Your task to perform on an android device: empty trash in google photos Image 0: 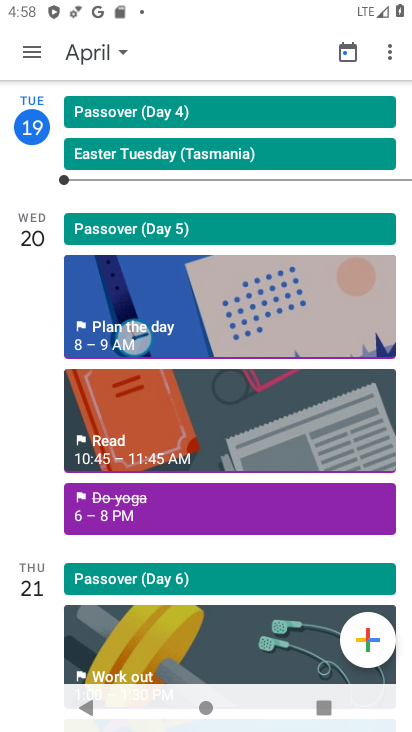
Step 0: press home button
Your task to perform on an android device: empty trash in google photos Image 1: 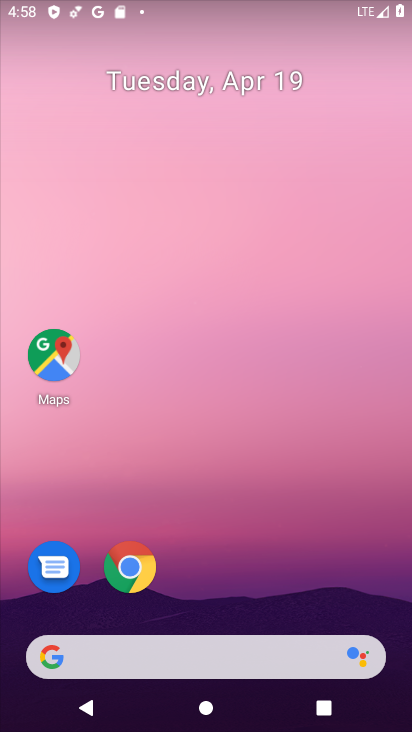
Step 1: drag from (253, 535) to (208, 37)
Your task to perform on an android device: empty trash in google photos Image 2: 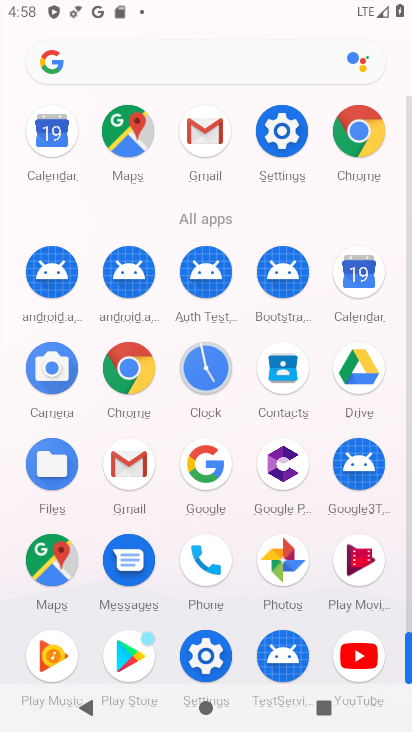
Step 2: click (275, 569)
Your task to perform on an android device: empty trash in google photos Image 3: 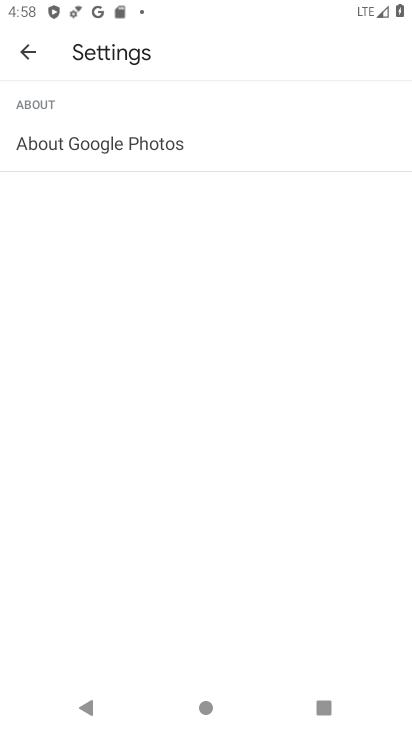
Step 3: press back button
Your task to perform on an android device: empty trash in google photos Image 4: 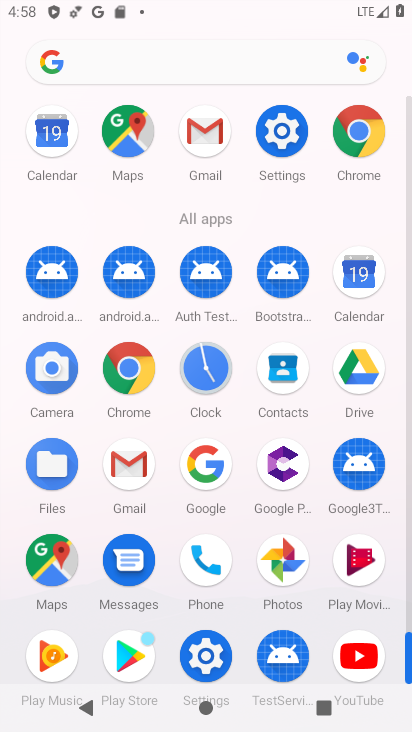
Step 4: click (286, 563)
Your task to perform on an android device: empty trash in google photos Image 5: 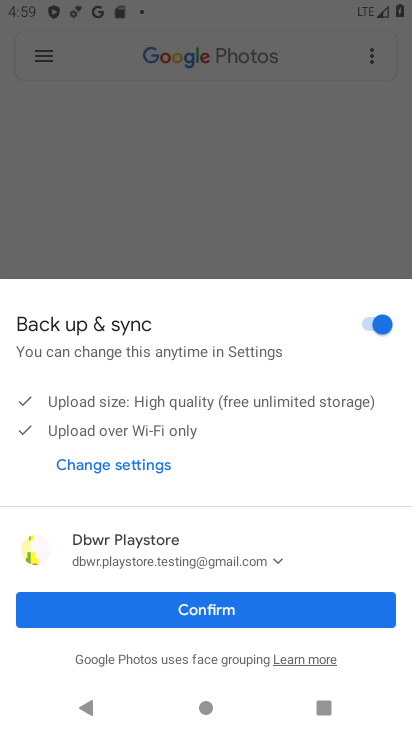
Step 5: click (197, 608)
Your task to perform on an android device: empty trash in google photos Image 6: 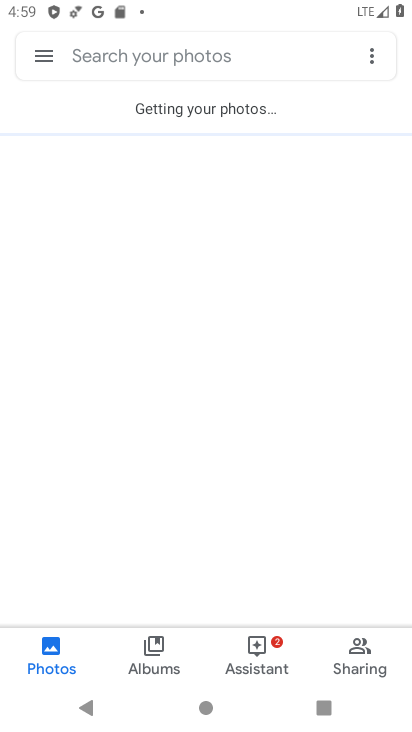
Step 6: click (35, 59)
Your task to perform on an android device: empty trash in google photos Image 7: 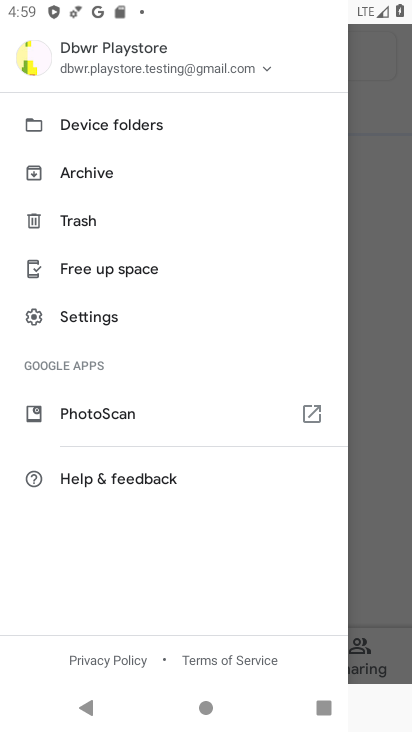
Step 7: click (86, 224)
Your task to perform on an android device: empty trash in google photos Image 8: 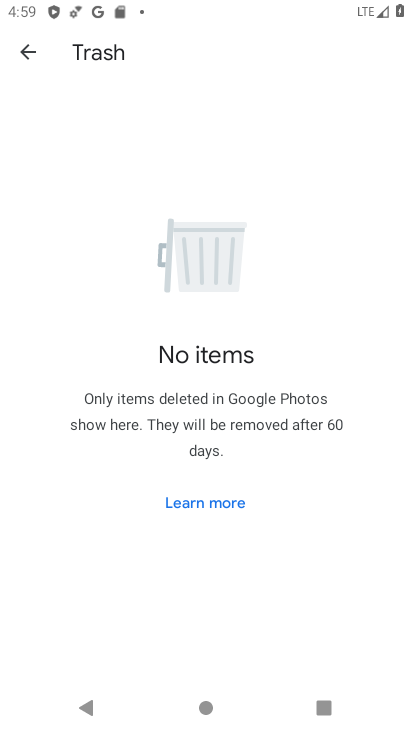
Step 8: task complete